Your task to perform on an android device: open app "Reddit" (install if not already installed) and go to login screen Image 0: 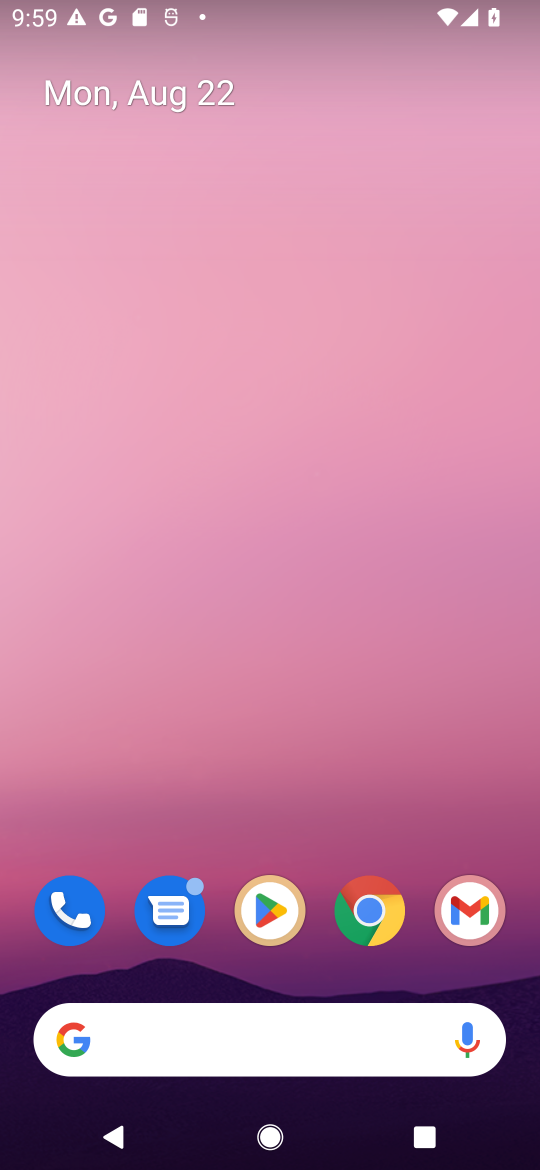
Step 0: click (283, 902)
Your task to perform on an android device: open app "Reddit" (install if not already installed) and go to login screen Image 1: 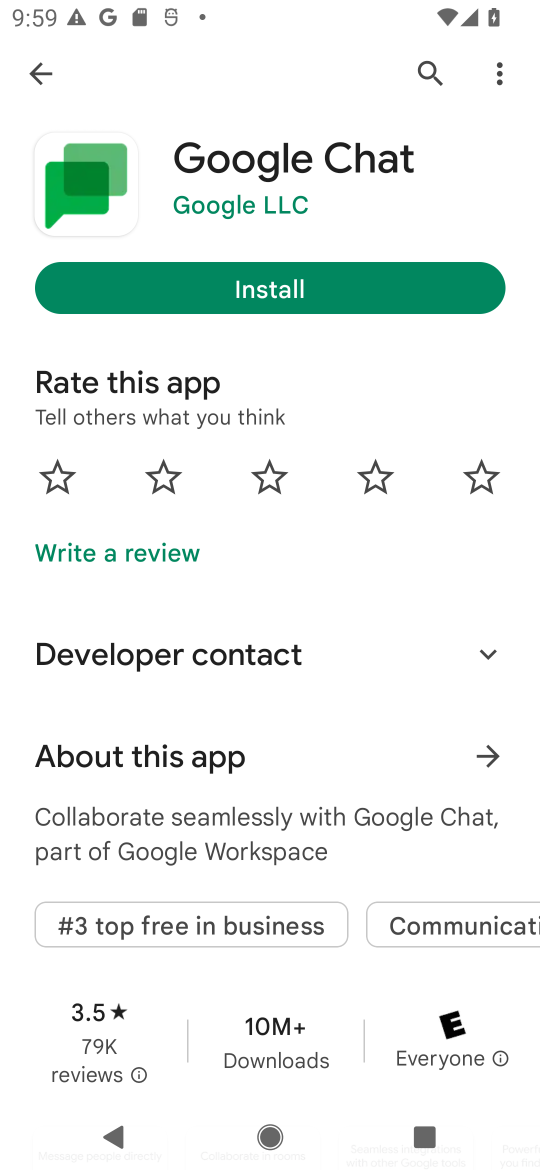
Step 1: click (431, 80)
Your task to perform on an android device: open app "Reddit" (install if not already installed) and go to login screen Image 2: 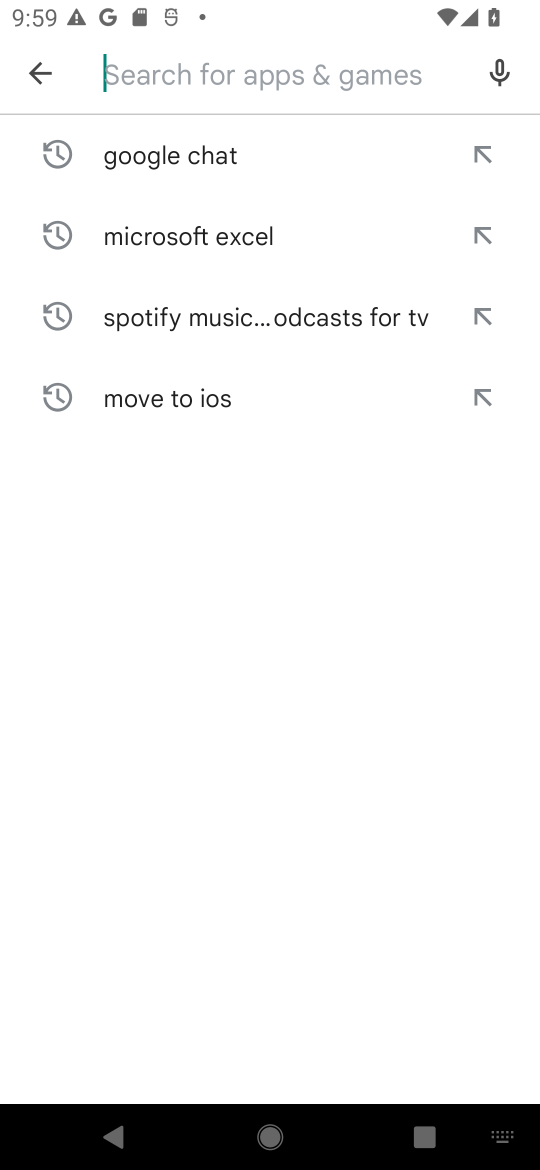
Step 2: type "Reddit"
Your task to perform on an android device: open app "Reddit" (install if not already installed) and go to login screen Image 3: 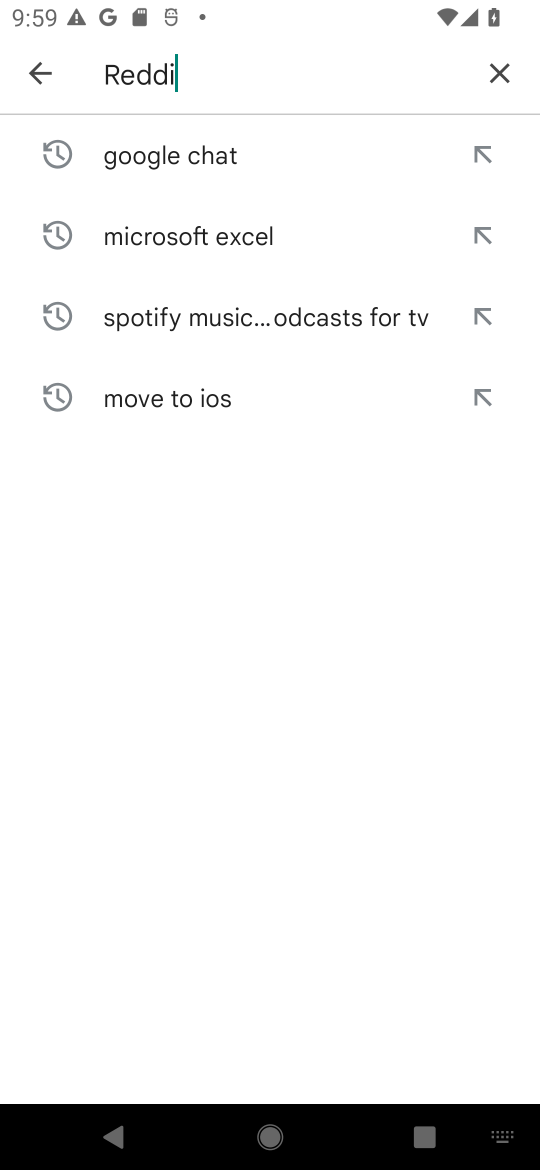
Step 3: type ""
Your task to perform on an android device: open app "Reddit" (install if not already installed) and go to login screen Image 4: 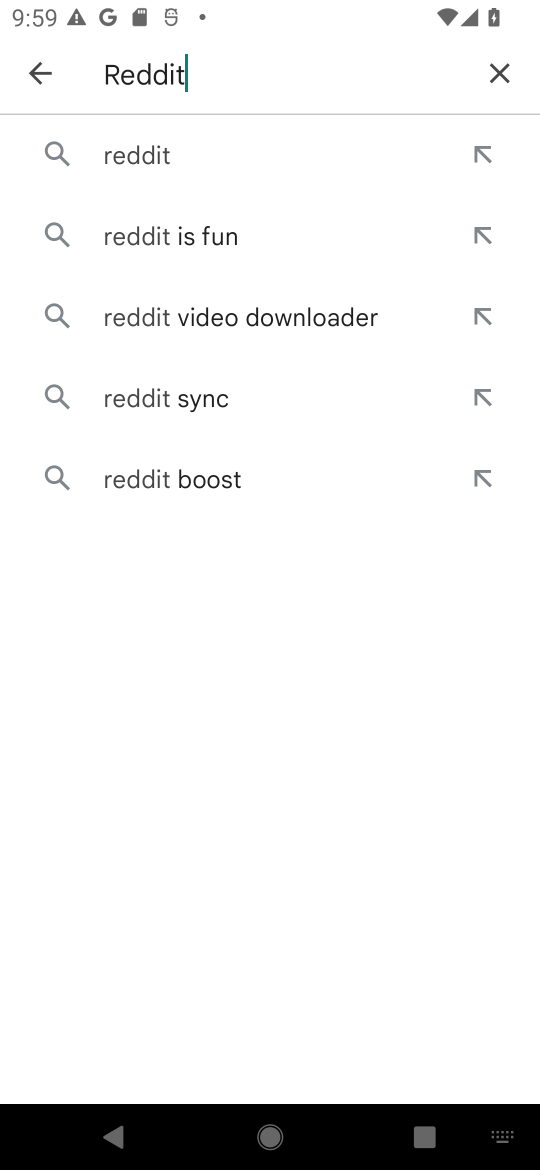
Step 4: click (192, 153)
Your task to perform on an android device: open app "Reddit" (install if not already installed) and go to login screen Image 5: 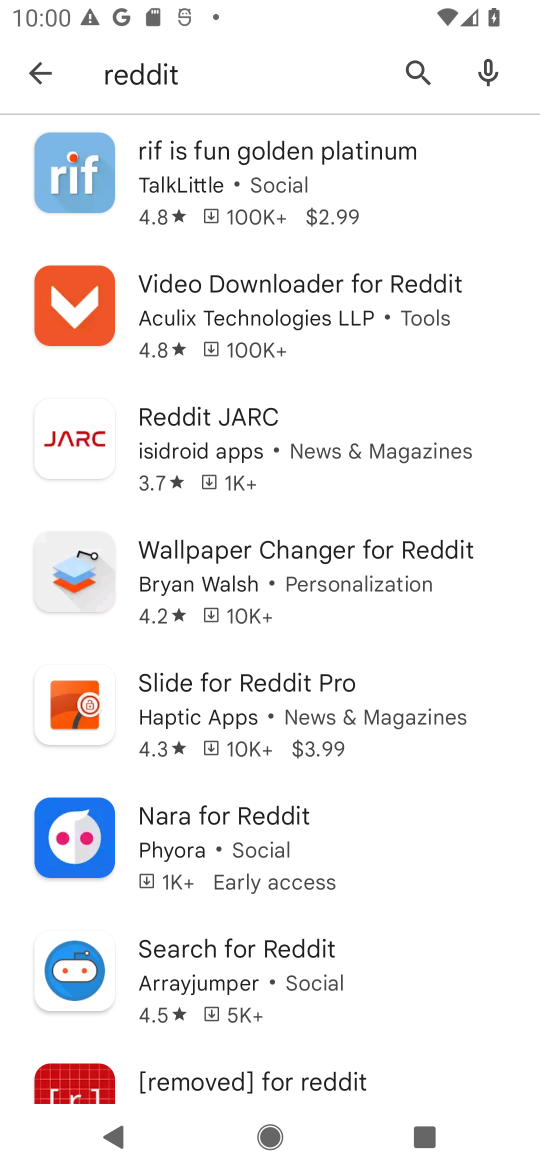
Step 5: task complete